Your task to perform on an android device: Open Google Chrome Image 0: 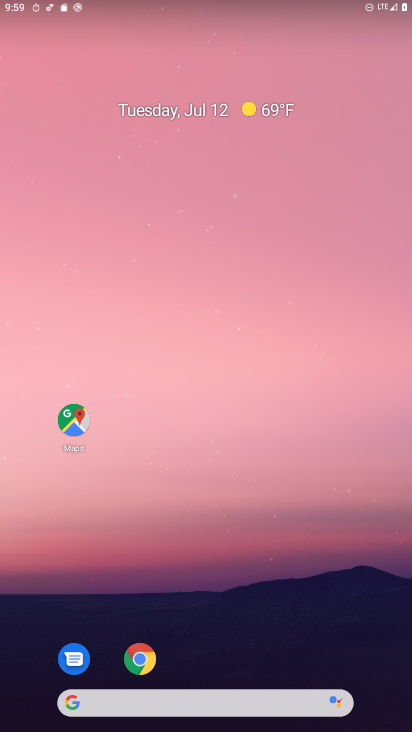
Step 0: click (138, 665)
Your task to perform on an android device: Open Google Chrome Image 1: 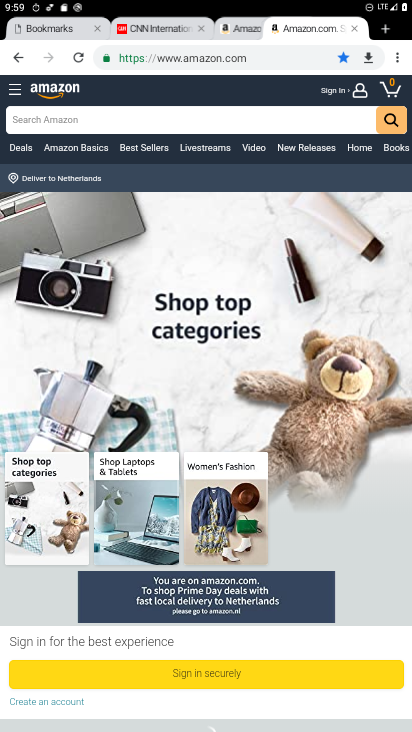
Step 1: task complete